Your task to perform on an android device: Turn on the flashlight Image 0: 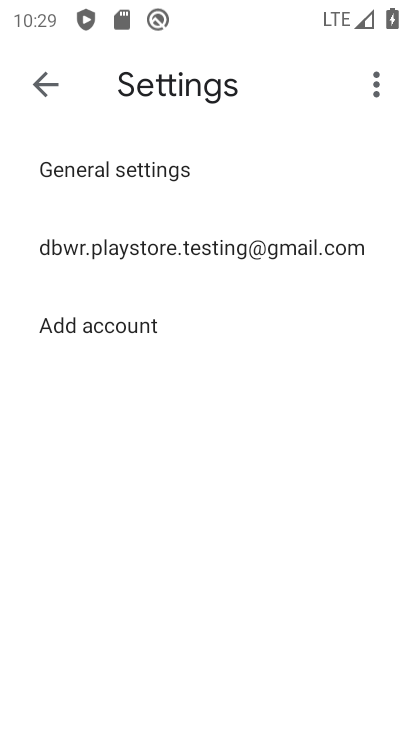
Step 0: press home button
Your task to perform on an android device: Turn on the flashlight Image 1: 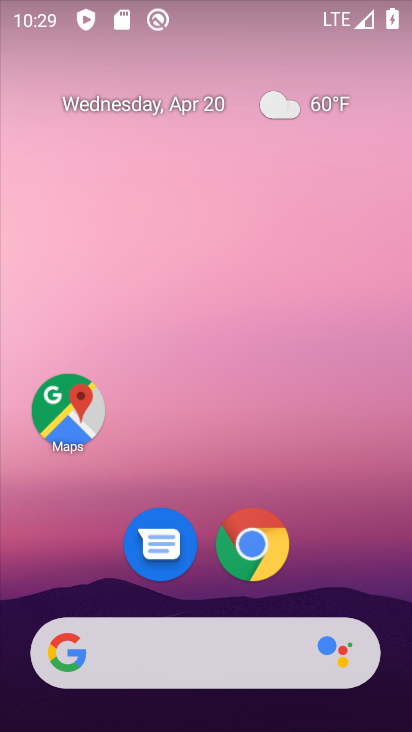
Step 1: drag from (277, 7) to (400, 268)
Your task to perform on an android device: Turn on the flashlight Image 2: 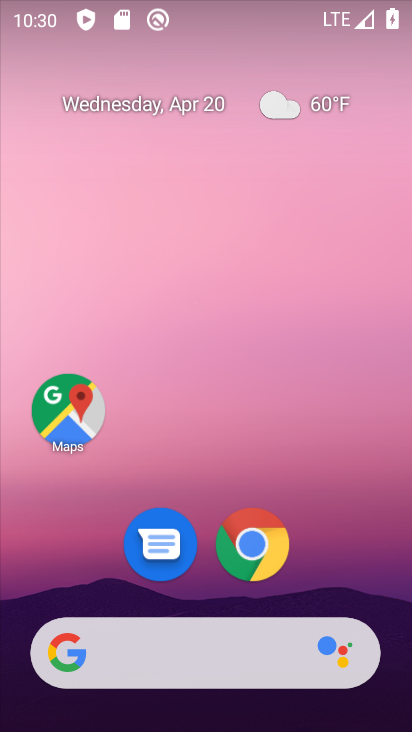
Step 2: drag from (273, 10) to (388, 705)
Your task to perform on an android device: Turn on the flashlight Image 3: 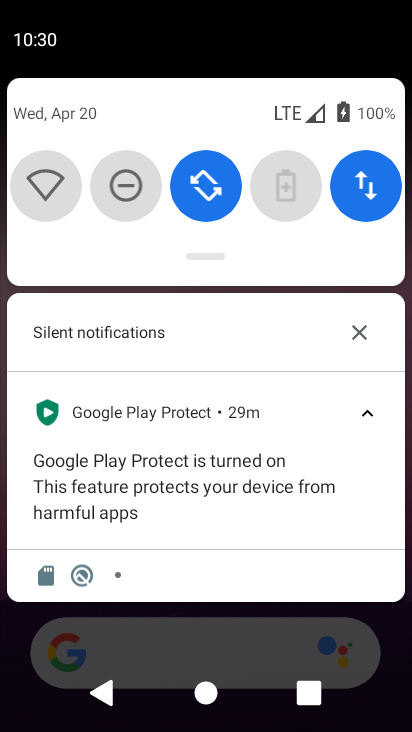
Step 3: drag from (246, 226) to (245, 677)
Your task to perform on an android device: Turn on the flashlight Image 4: 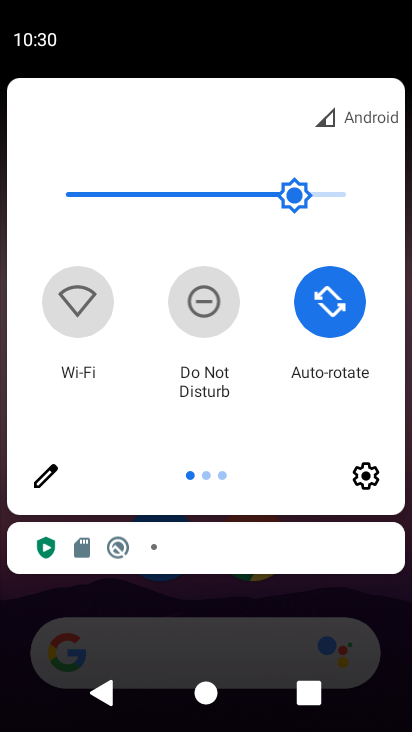
Step 4: drag from (385, 393) to (40, 358)
Your task to perform on an android device: Turn on the flashlight Image 5: 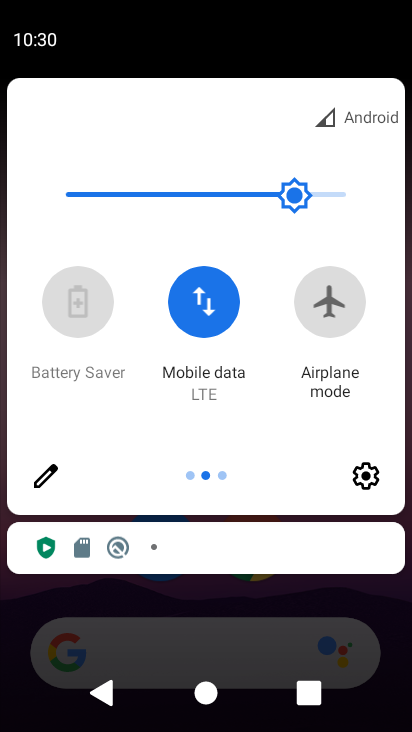
Step 5: drag from (377, 380) to (23, 392)
Your task to perform on an android device: Turn on the flashlight Image 6: 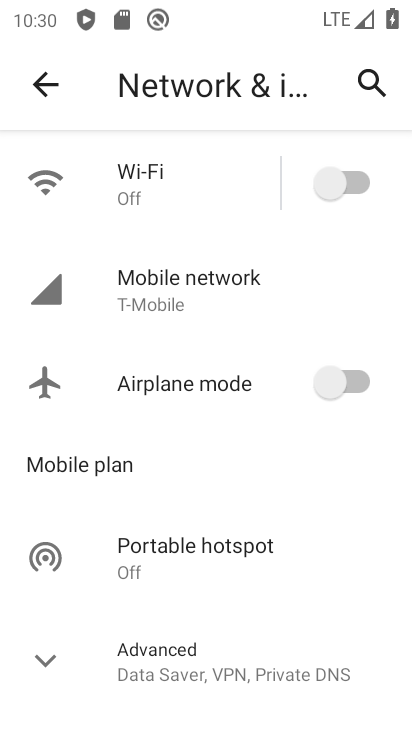
Step 6: drag from (285, 10) to (302, 686)
Your task to perform on an android device: Turn on the flashlight Image 7: 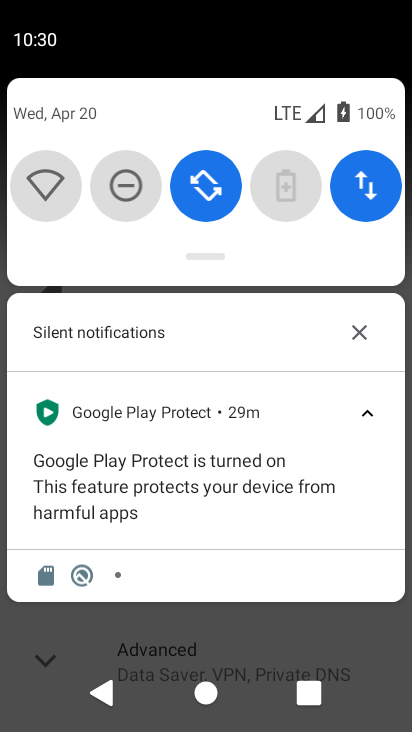
Step 7: drag from (239, 236) to (358, 715)
Your task to perform on an android device: Turn on the flashlight Image 8: 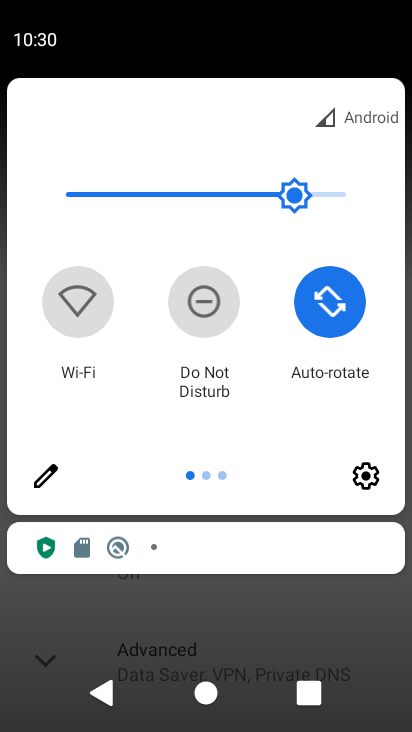
Step 8: drag from (398, 335) to (19, 314)
Your task to perform on an android device: Turn on the flashlight Image 9: 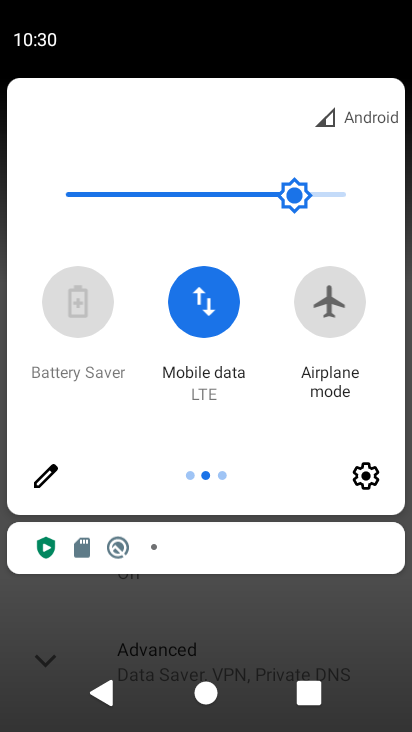
Step 9: drag from (386, 306) to (4, 315)
Your task to perform on an android device: Turn on the flashlight Image 10: 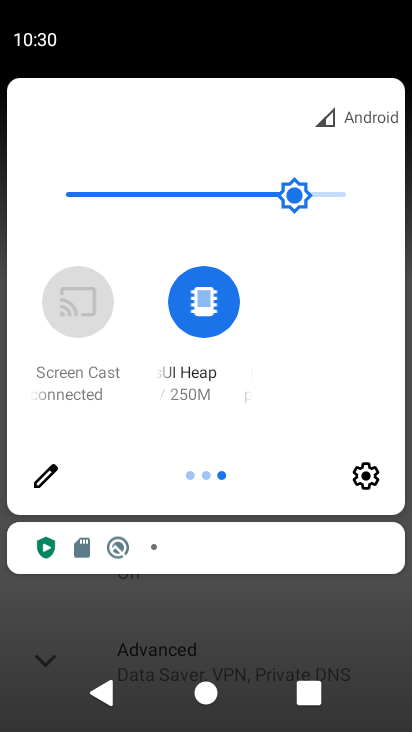
Step 10: click (48, 462)
Your task to perform on an android device: Turn on the flashlight Image 11: 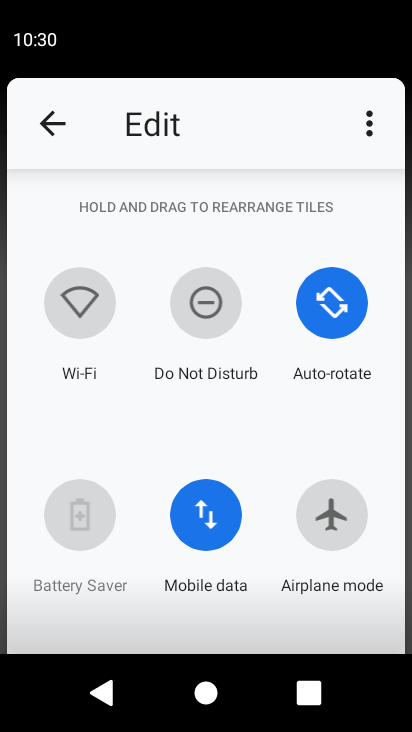
Step 11: task complete